Your task to perform on an android device: Open wifi settings Image 0: 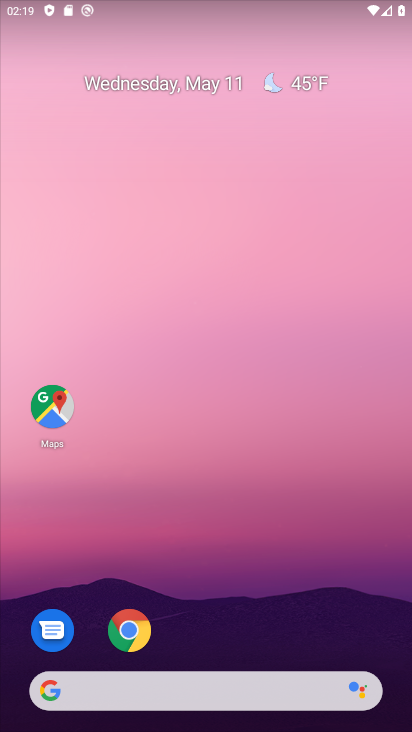
Step 0: drag from (192, 721) to (170, 38)
Your task to perform on an android device: Open wifi settings Image 1: 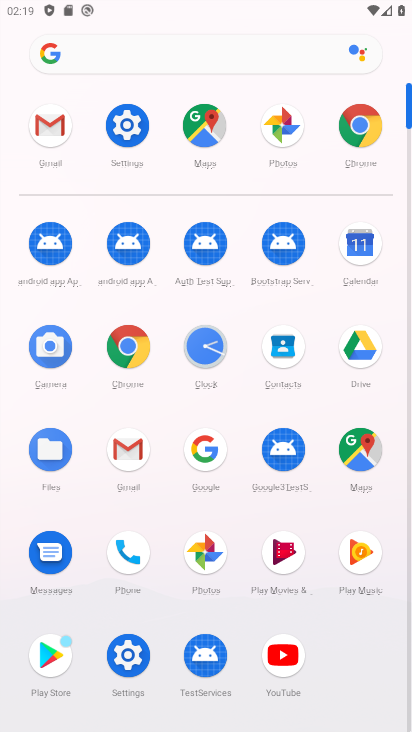
Step 1: click (126, 128)
Your task to perform on an android device: Open wifi settings Image 2: 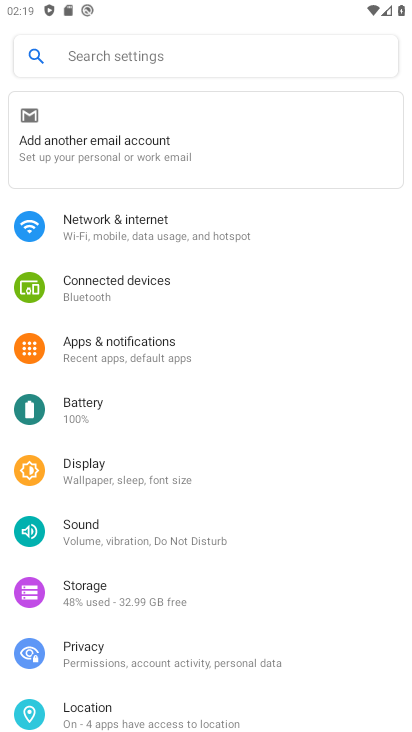
Step 2: click (127, 221)
Your task to perform on an android device: Open wifi settings Image 3: 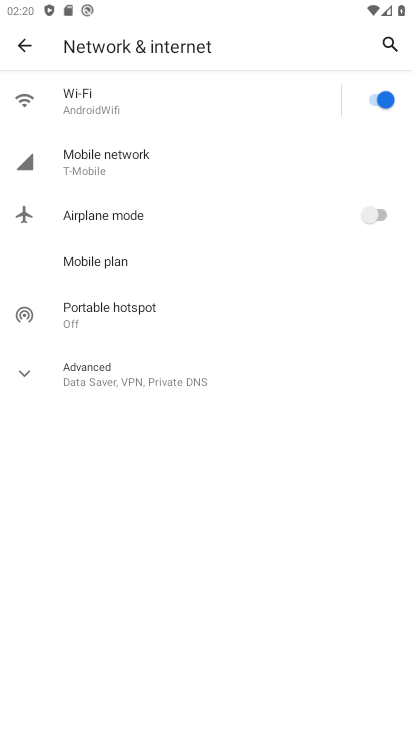
Step 3: click (83, 95)
Your task to perform on an android device: Open wifi settings Image 4: 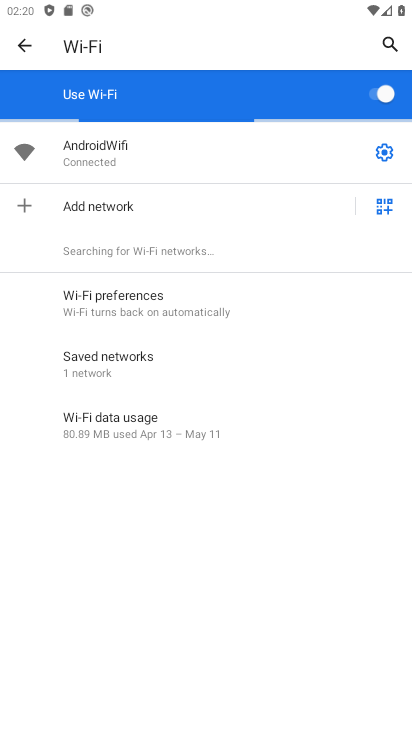
Step 4: task complete